Your task to perform on an android device: change the clock style Image 0: 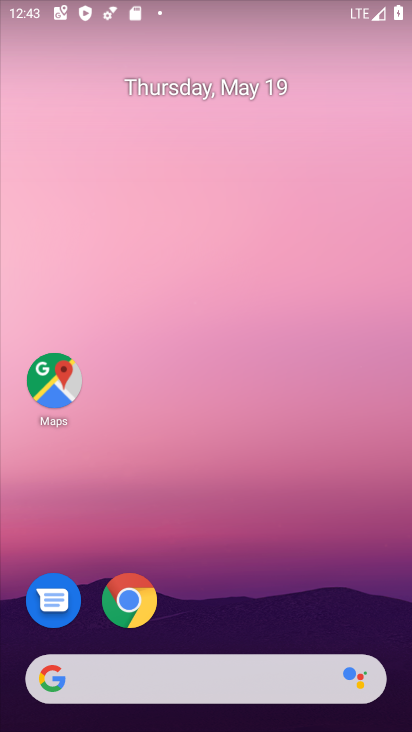
Step 0: drag from (248, 533) to (239, 47)
Your task to perform on an android device: change the clock style Image 1: 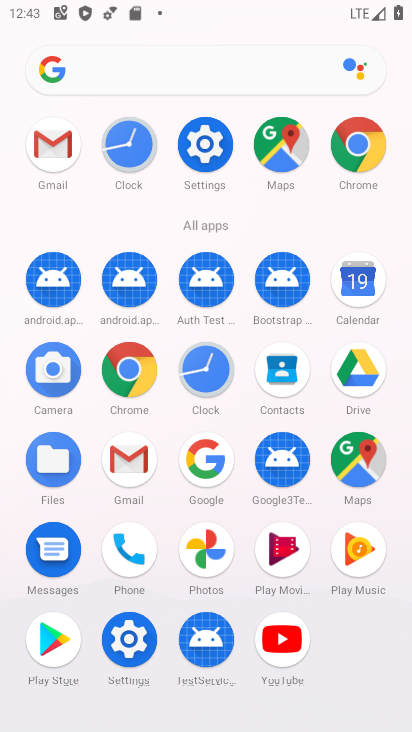
Step 1: click (115, 138)
Your task to perform on an android device: change the clock style Image 2: 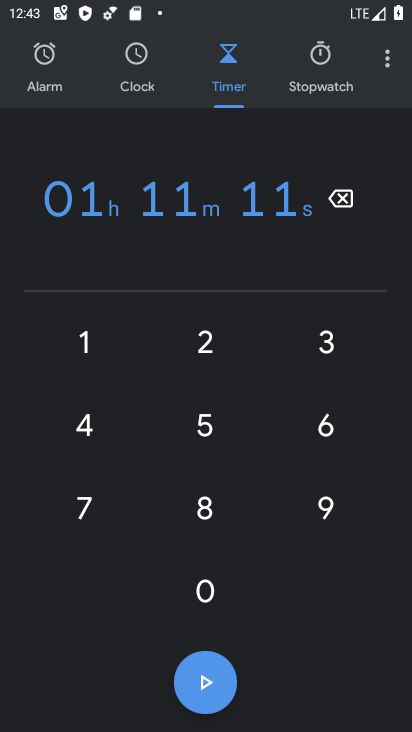
Step 2: click (388, 60)
Your task to perform on an android device: change the clock style Image 3: 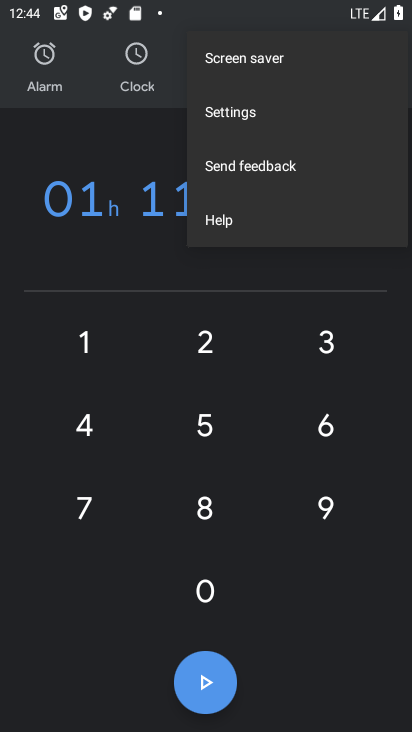
Step 3: click (236, 113)
Your task to perform on an android device: change the clock style Image 4: 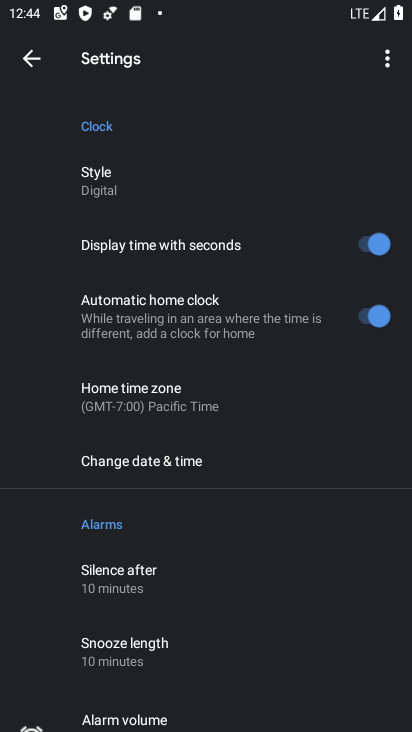
Step 4: click (97, 172)
Your task to perform on an android device: change the clock style Image 5: 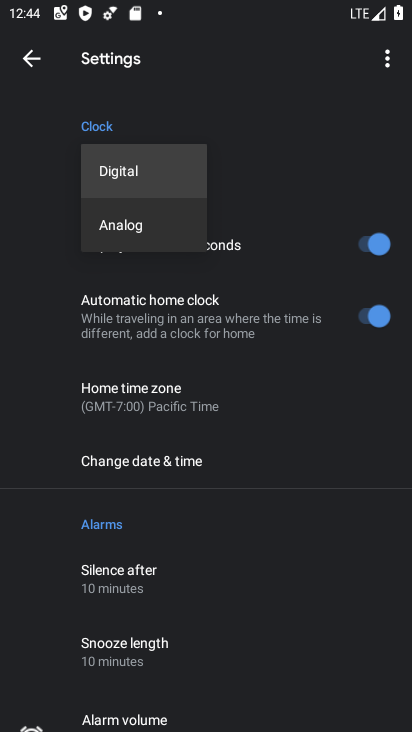
Step 5: click (115, 218)
Your task to perform on an android device: change the clock style Image 6: 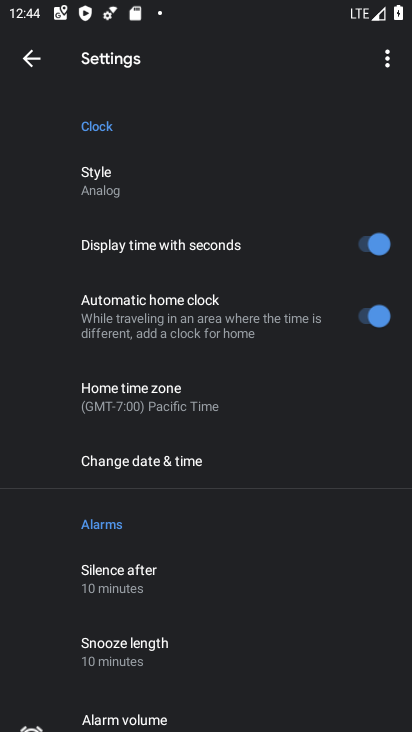
Step 6: task complete